Your task to perform on an android device: set an alarm Image 0: 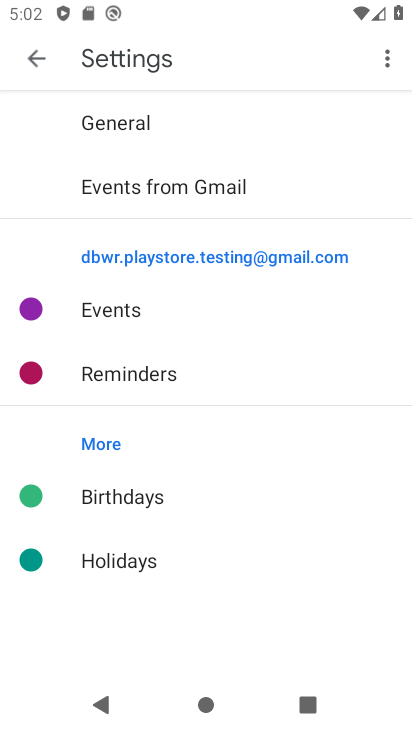
Step 0: press back button
Your task to perform on an android device: set an alarm Image 1: 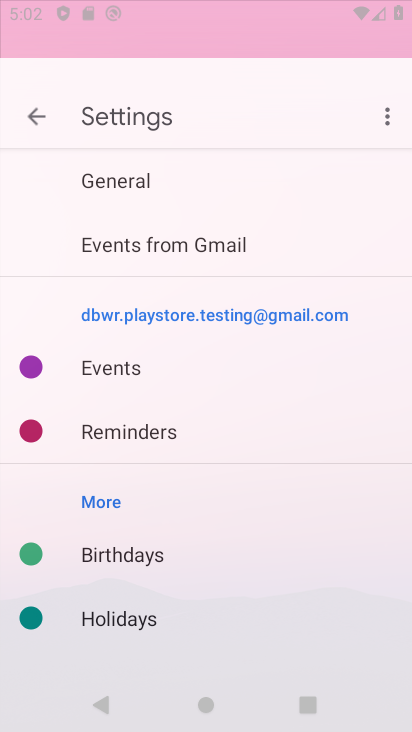
Step 1: press home button
Your task to perform on an android device: set an alarm Image 2: 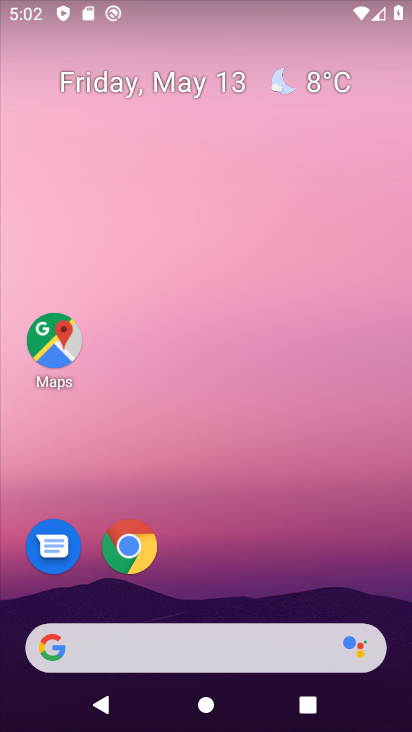
Step 2: drag from (196, 611) to (205, 530)
Your task to perform on an android device: set an alarm Image 3: 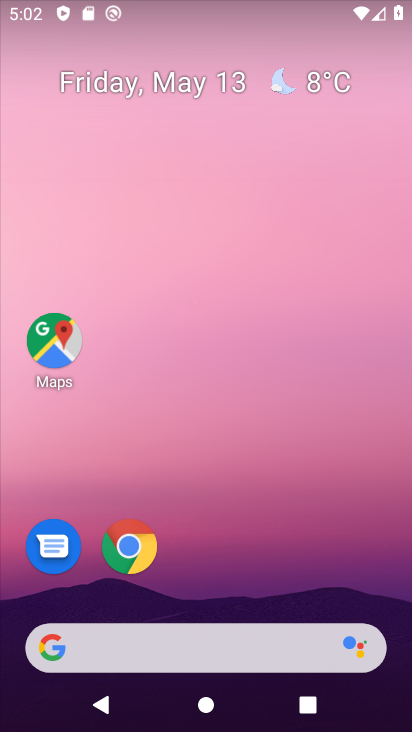
Step 3: drag from (189, 609) to (210, 524)
Your task to perform on an android device: set an alarm Image 4: 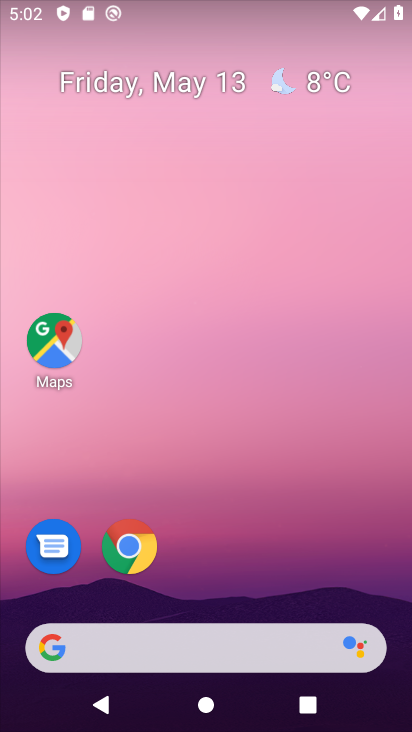
Step 4: drag from (180, 602) to (295, 149)
Your task to perform on an android device: set an alarm Image 5: 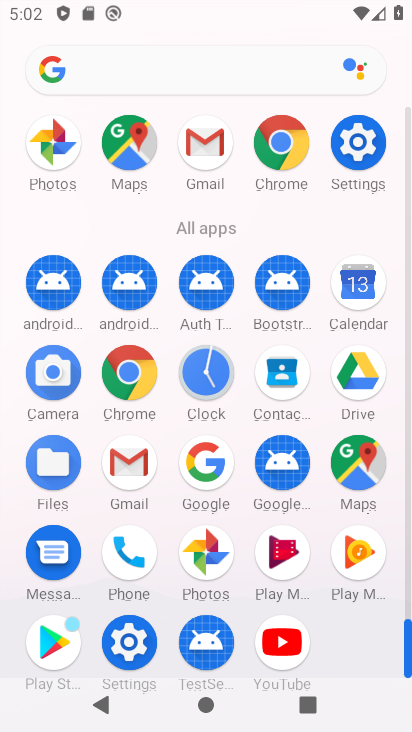
Step 5: click (215, 386)
Your task to perform on an android device: set an alarm Image 6: 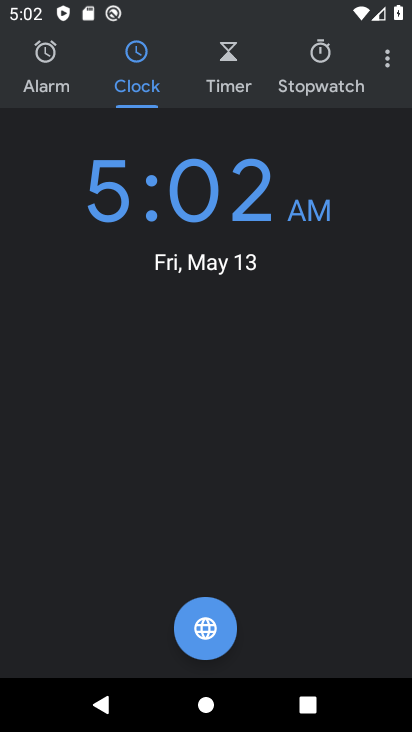
Step 6: click (40, 71)
Your task to perform on an android device: set an alarm Image 7: 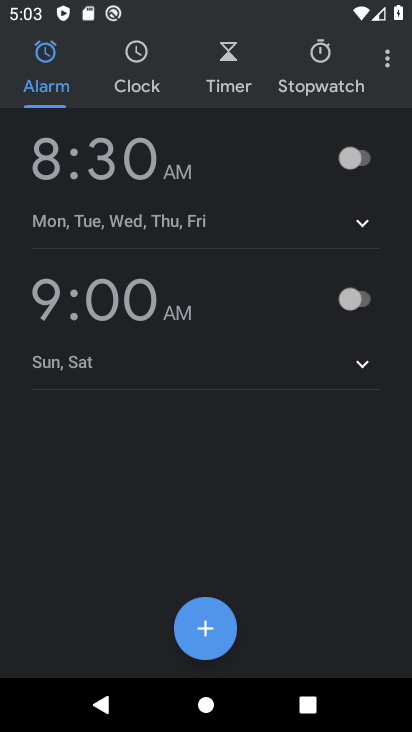
Step 7: click (369, 162)
Your task to perform on an android device: set an alarm Image 8: 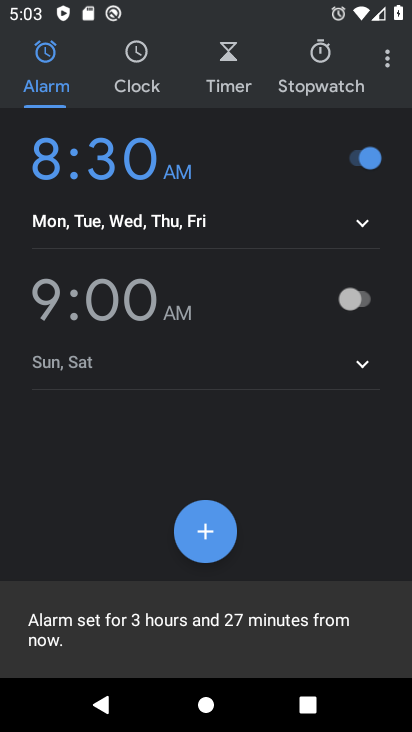
Step 8: task complete